Your task to perform on an android device: Check the weather Image 0: 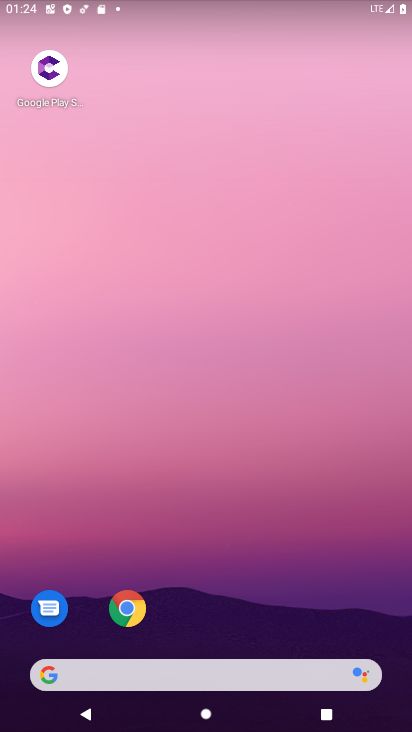
Step 0: drag from (326, 622) to (273, 174)
Your task to perform on an android device: Check the weather Image 1: 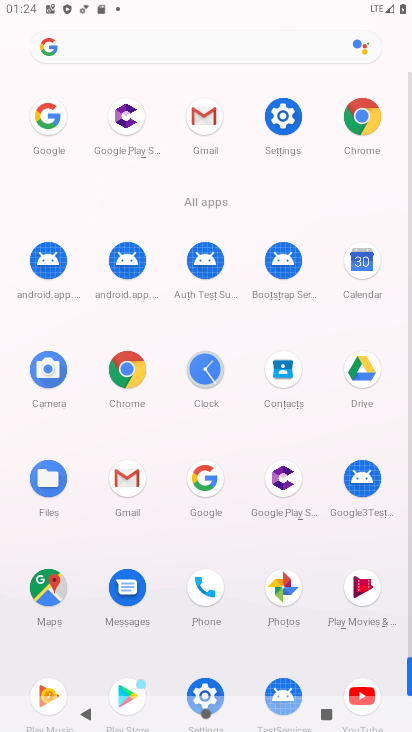
Step 1: click (129, 366)
Your task to perform on an android device: Check the weather Image 2: 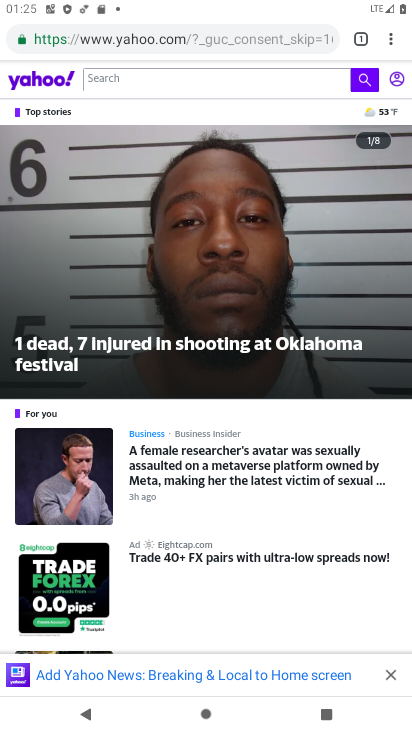
Step 2: click (387, 38)
Your task to perform on an android device: Check the weather Image 3: 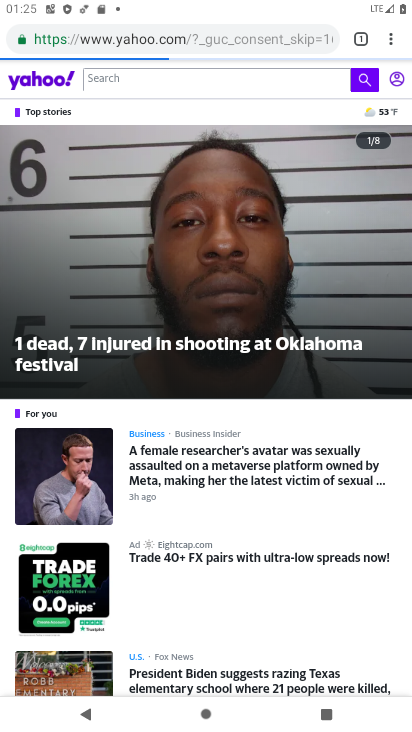
Step 3: click (402, 39)
Your task to perform on an android device: Check the weather Image 4: 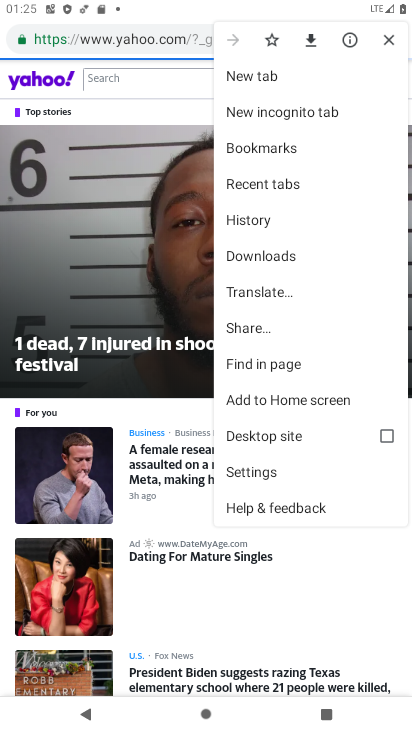
Step 4: click (276, 67)
Your task to perform on an android device: Check the weather Image 5: 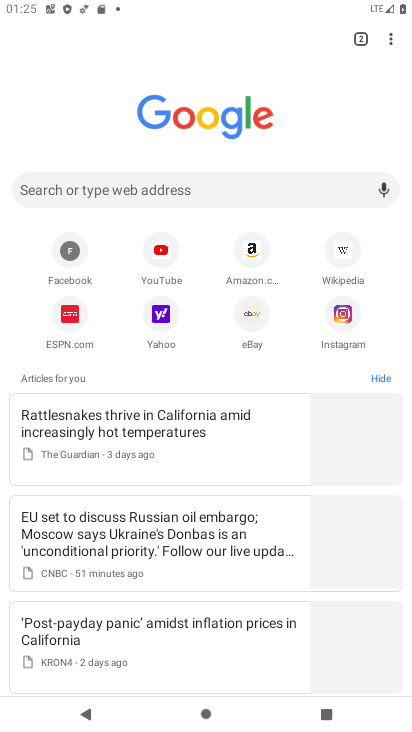
Step 5: click (140, 728)
Your task to perform on an android device: Check the weather Image 6: 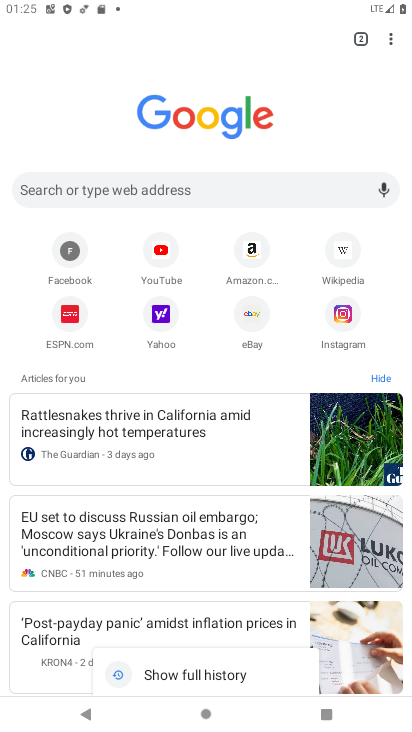
Step 6: click (223, 179)
Your task to perform on an android device: Check the weather Image 7: 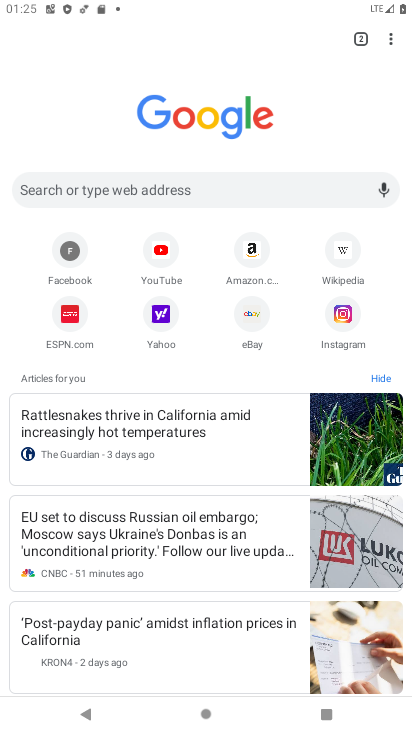
Step 7: click (146, 169)
Your task to perform on an android device: Check the weather Image 8: 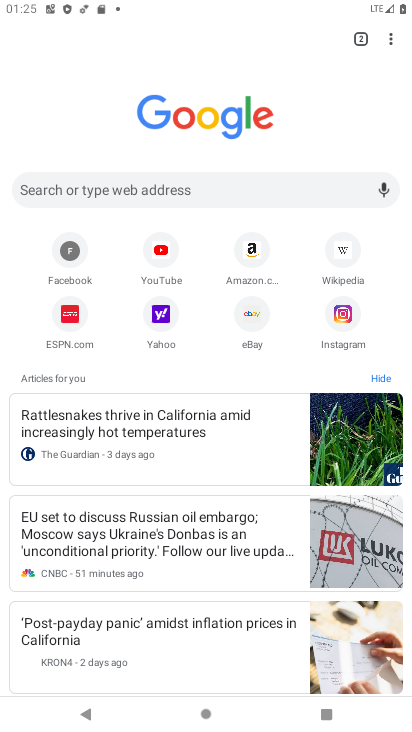
Step 8: click (132, 195)
Your task to perform on an android device: Check the weather Image 9: 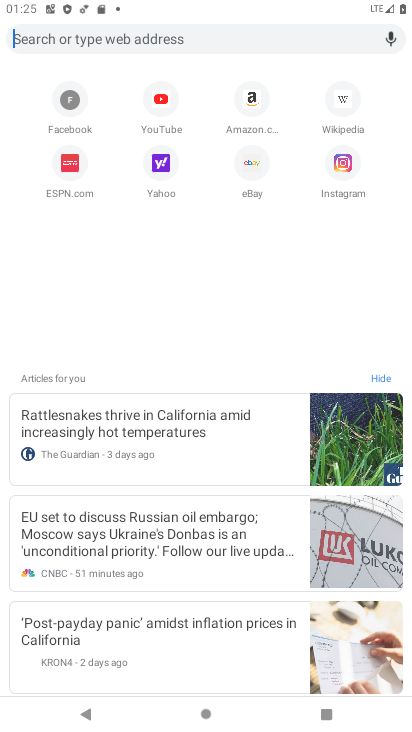
Step 9: click (253, 195)
Your task to perform on an android device: Check the weather Image 10: 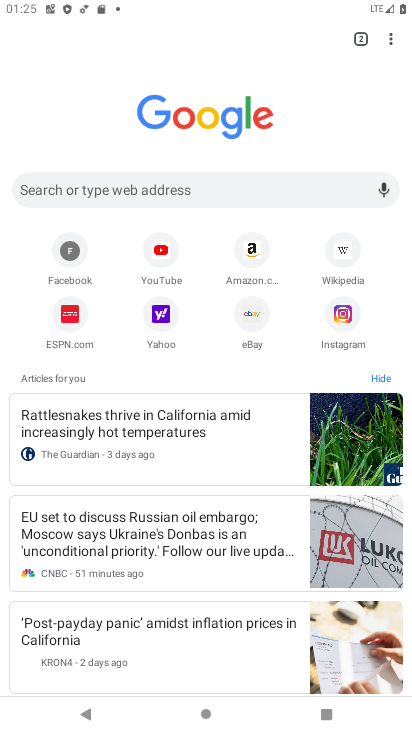
Step 10: type "Check the weather"
Your task to perform on an android device: Check the weather Image 11: 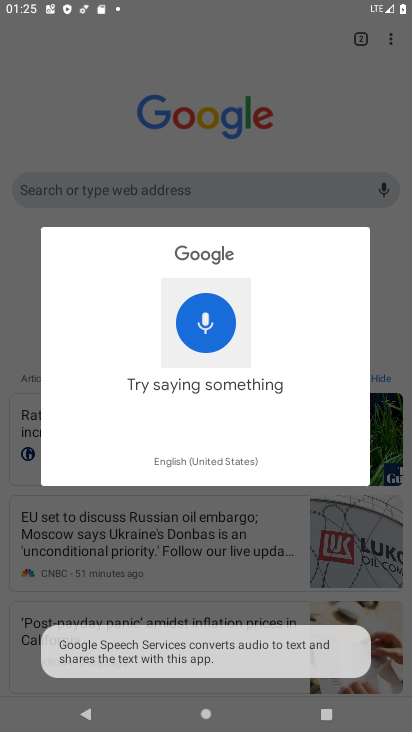
Step 11: drag from (409, 377) to (395, 569)
Your task to perform on an android device: Check the weather Image 12: 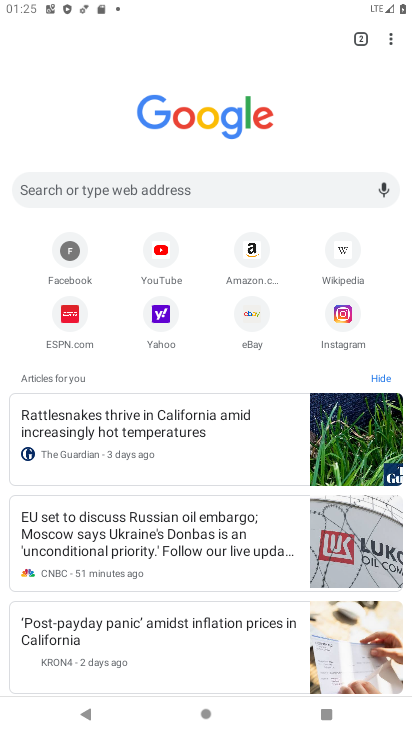
Step 12: click (210, 185)
Your task to perform on an android device: Check the weather Image 13: 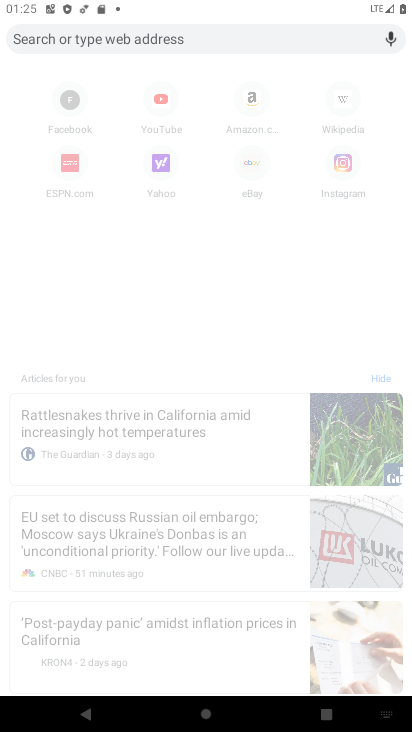
Step 13: type "Check the weather"
Your task to perform on an android device: Check the weather Image 14: 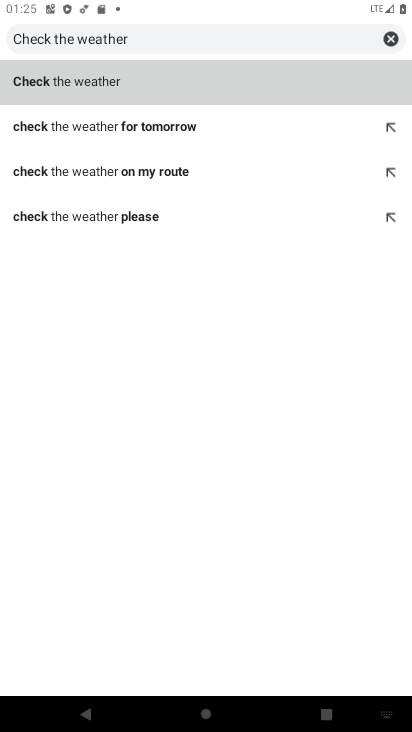
Step 14: click (107, 80)
Your task to perform on an android device: Check the weather Image 15: 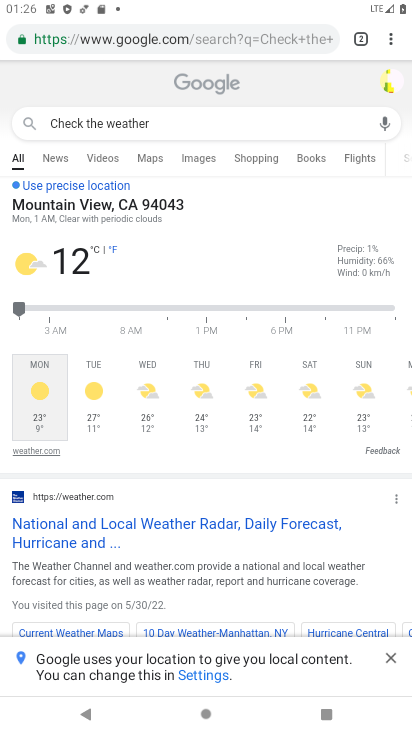
Step 15: task complete